Your task to perform on an android device: turn on data saver in the chrome app Image 0: 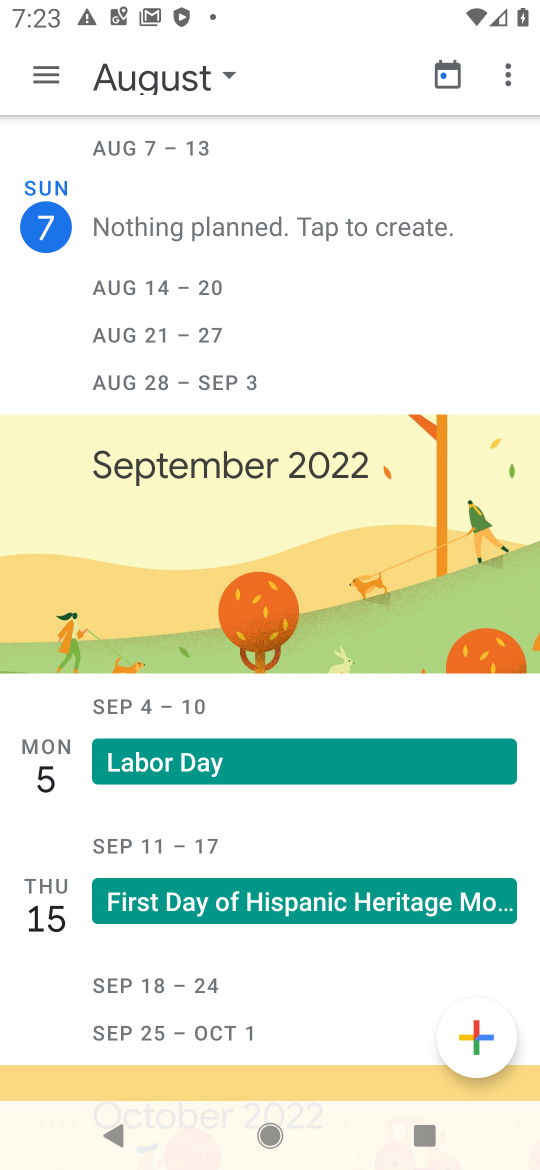
Step 0: press home button
Your task to perform on an android device: turn on data saver in the chrome app Image 1: 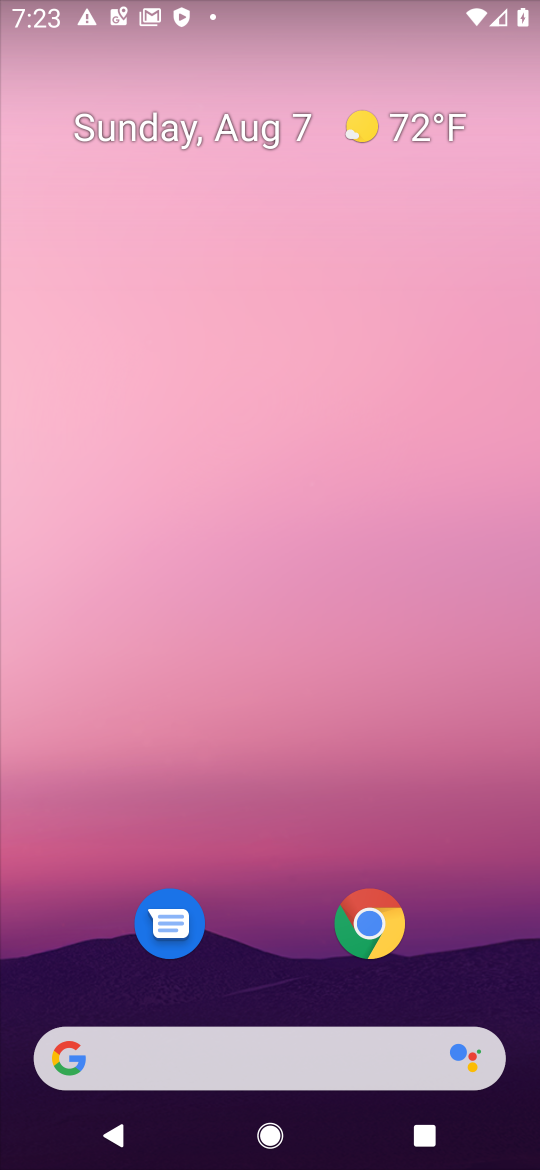
Step 1: drag from (506, 982) to (357, 149)
Your task to perform on an android device: turn on data saver in the chrome app Image 2: 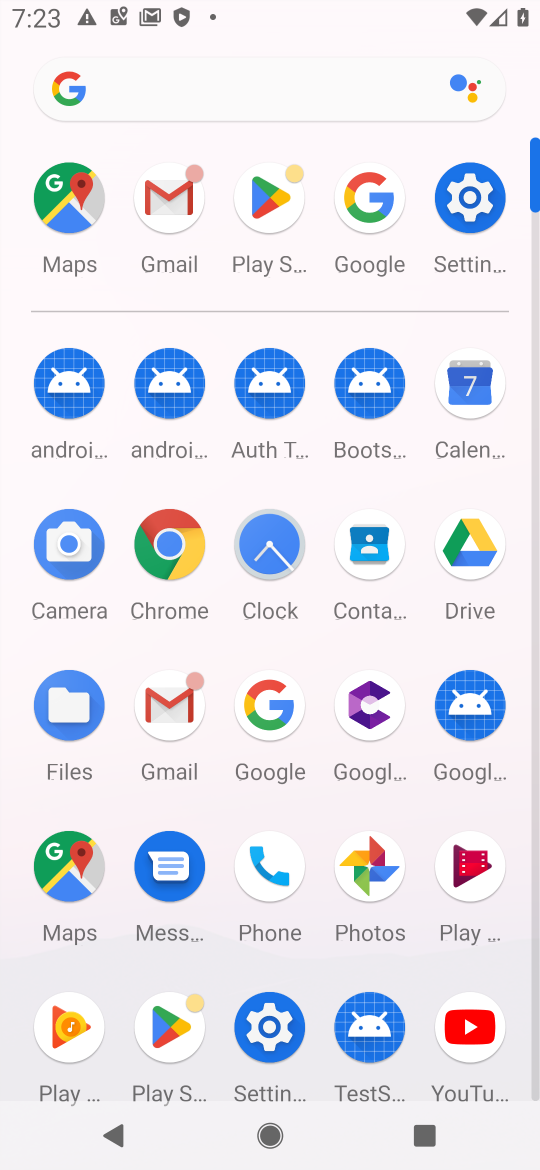
Step 2: click (178, 528)
Your task to perform on an android device: turn on data saver in the chrome app Image 3: 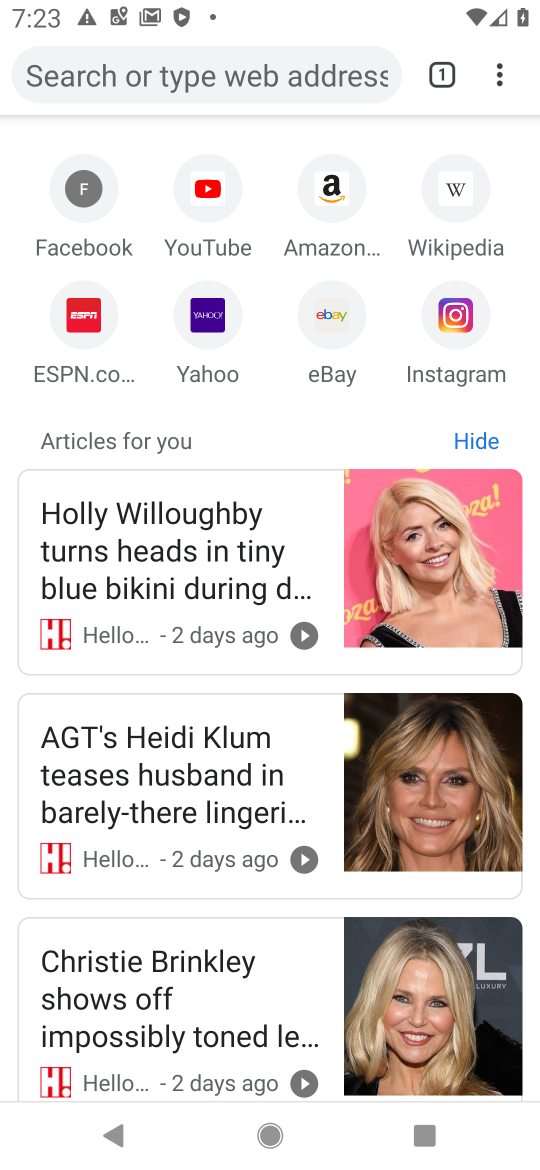
Step 3: click (501, 85)
Your task to perform on an android device: turn on data saver in the chrome app Image 4: 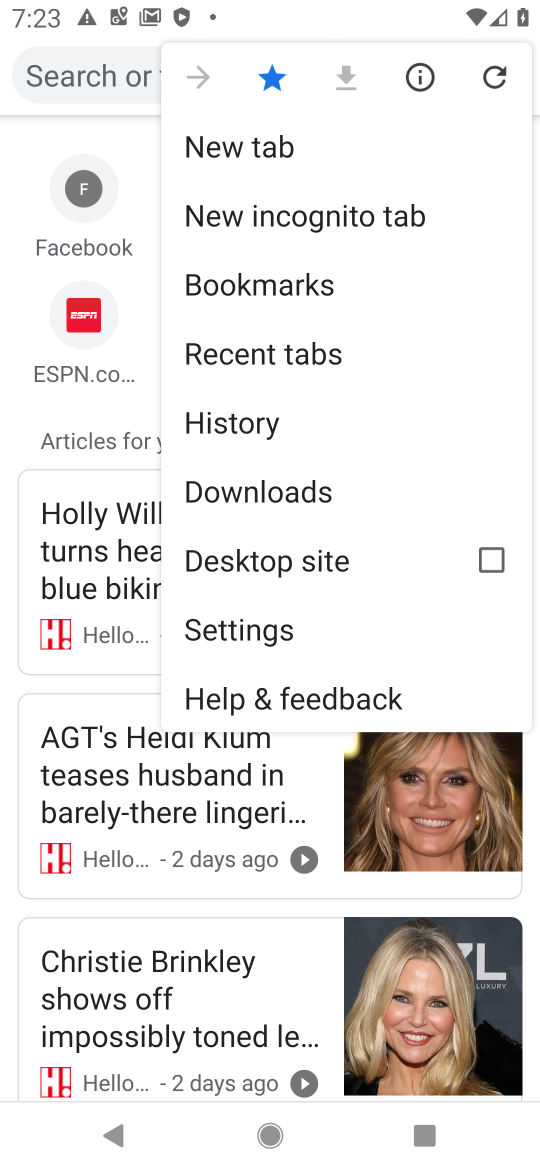
Step 4: click (313, 634)
Your task to perform on an android device: turn on data saver in the chrome app Image 5: 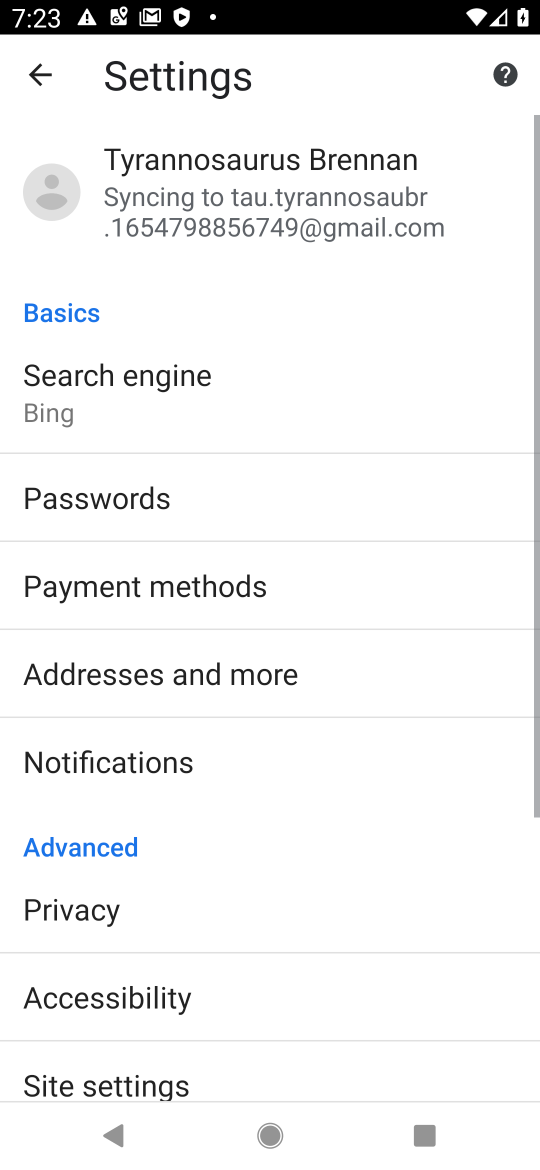
Step 5: drag from (113, 1023) to (218, 172)
Your task to perform on an android device: turn on data saver in the chrome app Image 6: 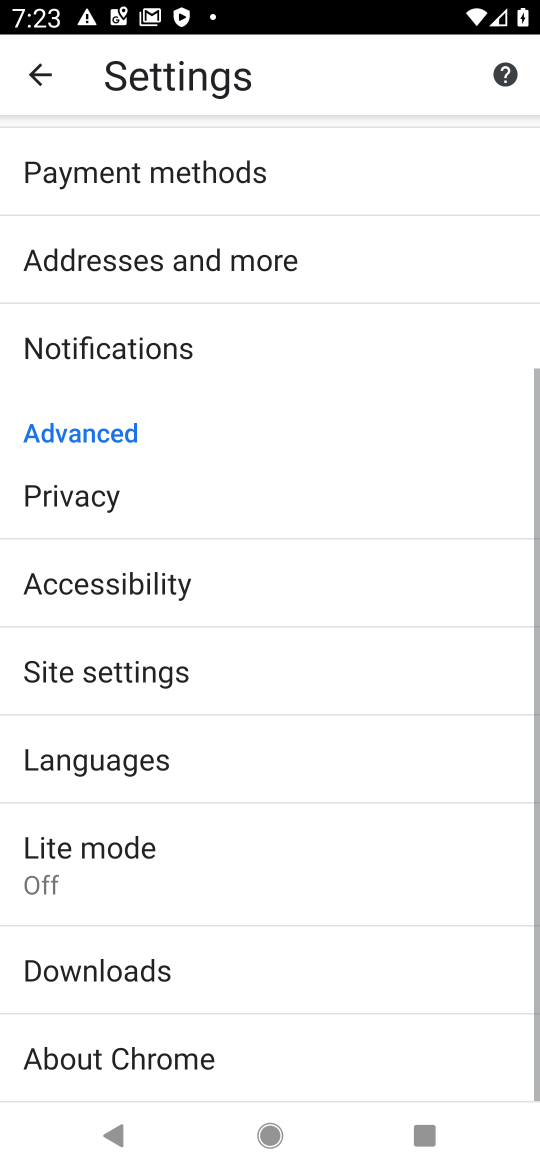
Step 6: click (128, 872)
Your task to perform on an android device: turn on data saver in the chrome app Image 7: 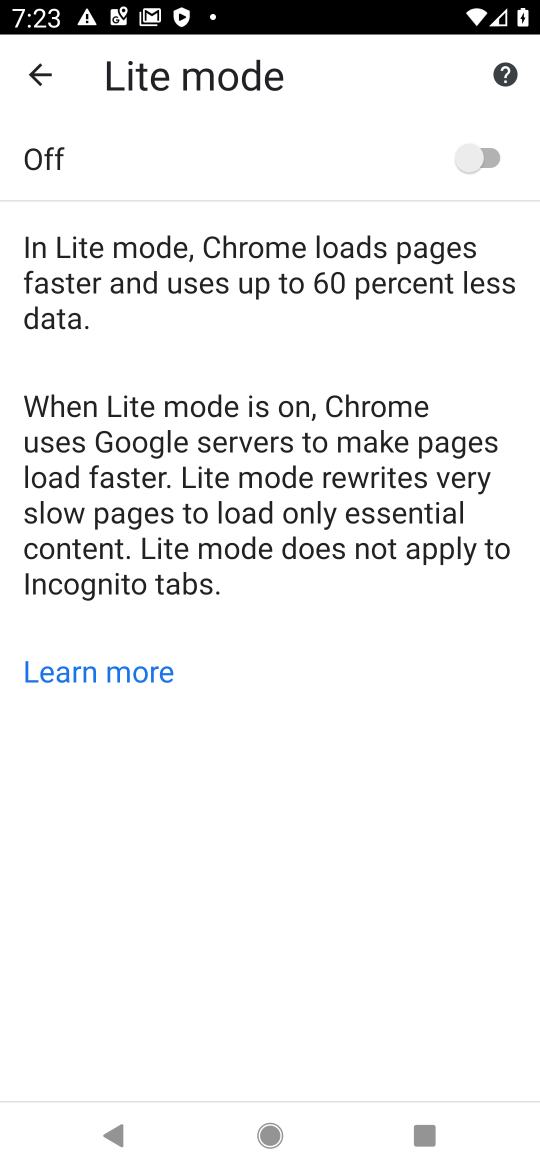
Step 7: click (498, 163)
Your task to perform on an android device: turn on data saver in the chrome app Image 8: 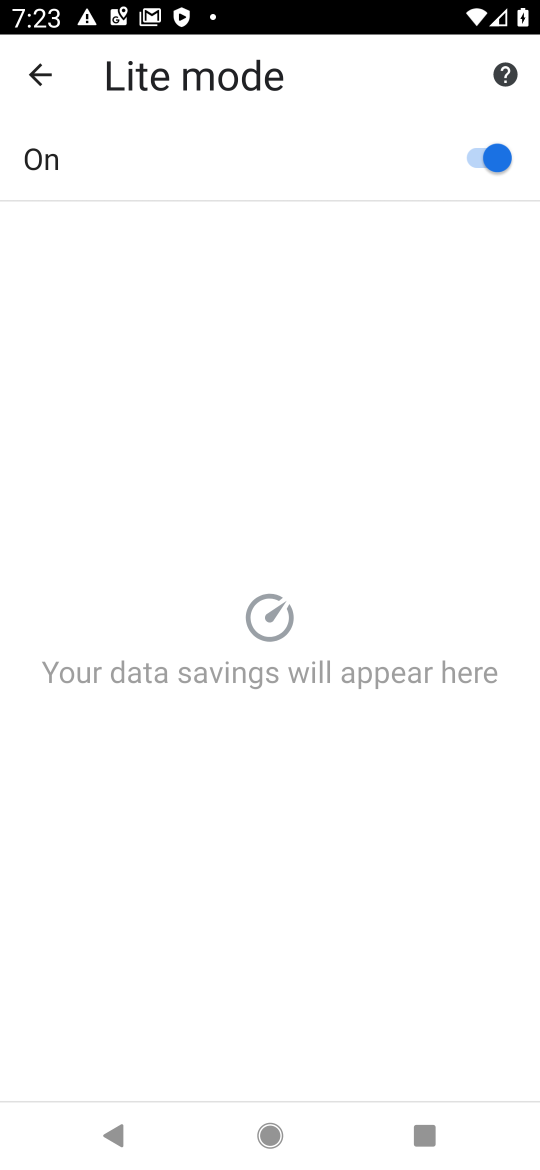
Step 8: task complete